Your task to perform on an android device: find photos in the google photos app Image 0: 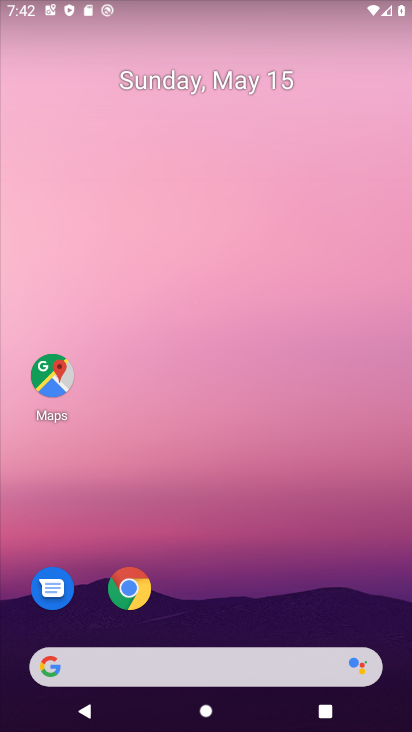
Step 0: drag from (235, 617) to (307, 180)
Your task to perform on an android device: find photos in the google photos app Image 1: 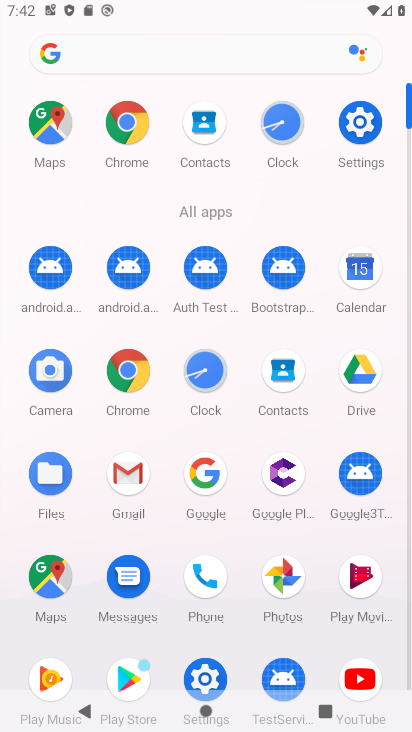
Step 1: click (283, 578)
Your task to perform on an android device: find photos in the google photos app Image 2: 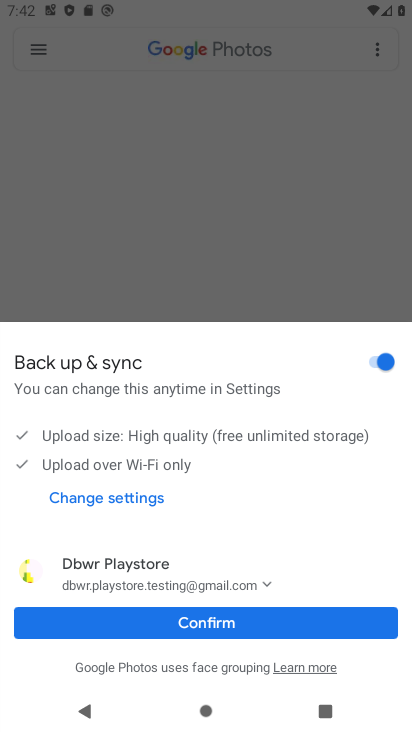
Step 2: click (205, 619)
Your task to perform on an android device: find photos in the google photos app Image 3: 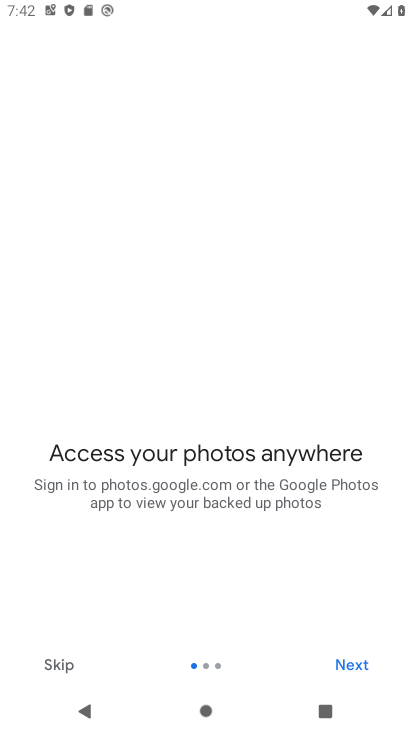
Step 3: click (348, 665)
Your task to perform on an android device: find photos in the google photos app Image 4: 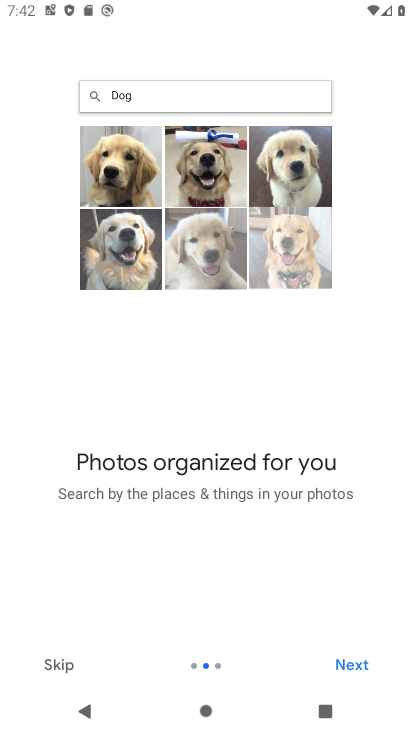
Step 4: click (354, 662)
Your task to perform on an android device: find photos in the google photos app Image 5: 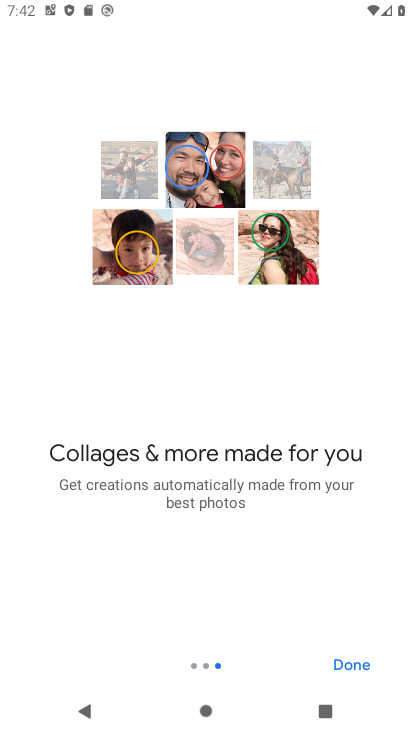
Step 5: click (350, 666)
Your task to perform on an android device: find photos in the google photos app Image 6: 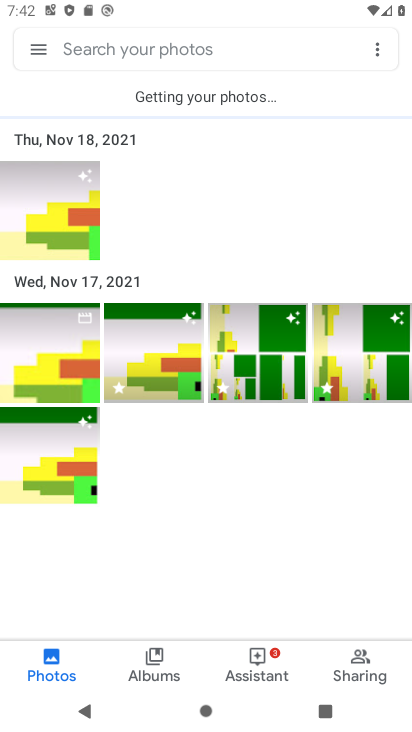
Step 6: task complete